Your task to perform on an android device: allow cookies in the chrome app Image 0: 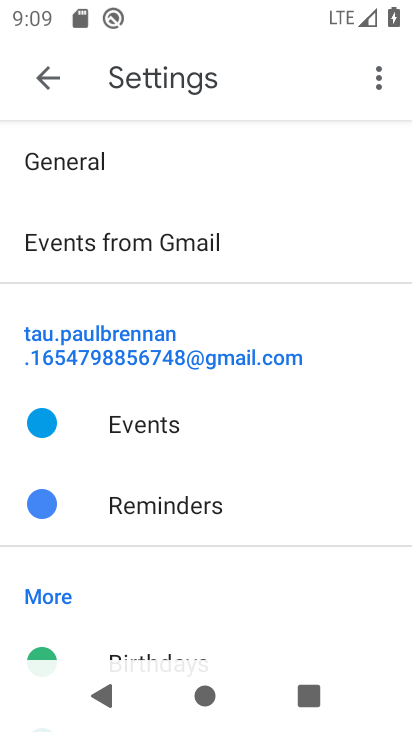
Step 0: press home button
Your task to perform on an android device: allow cookies in the chrome app Image 1: 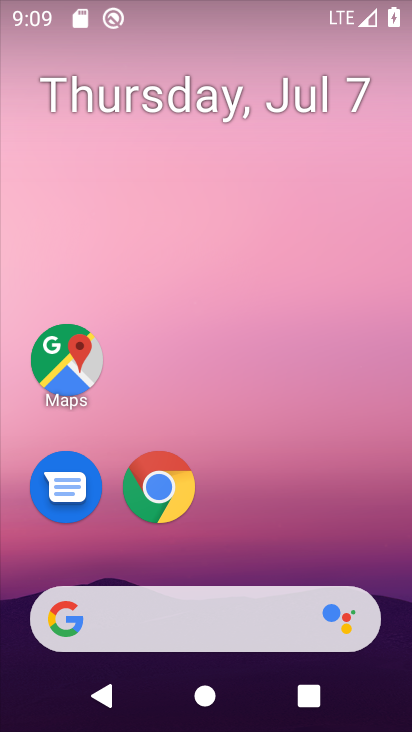
Step 1: drag from (365, 541) to (361, 72)
Your task to perform on an android device: allow cookies in the chrome app Image 2: 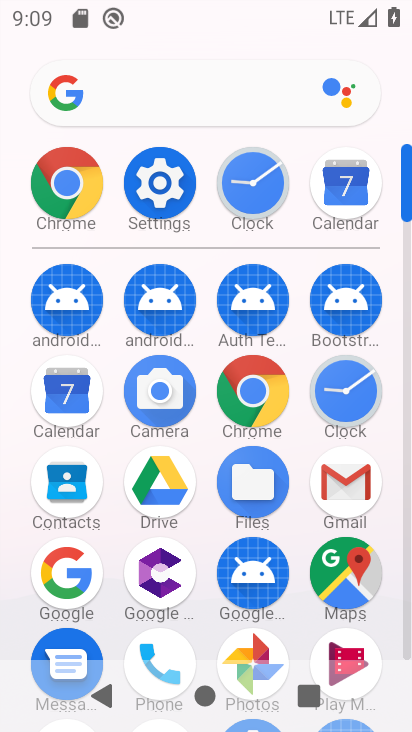
Step 2: click (259, 374)
Your task to perform on an android device: allow cookies in the chrome app Image 3: 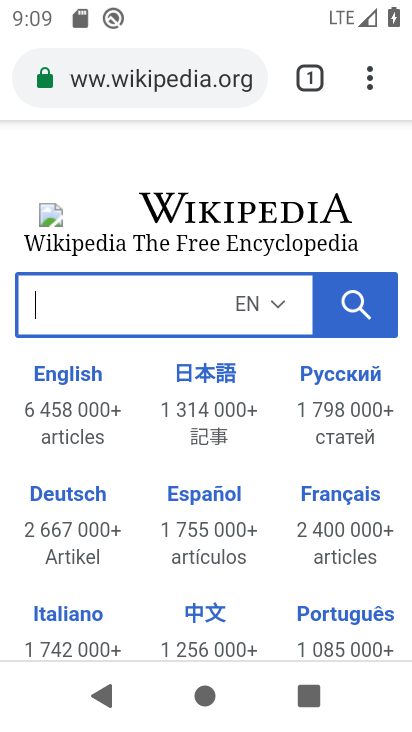
Step 3: click (367, 85)
Your task to perform on an android device: allow cookies in the chrome app Image 4: 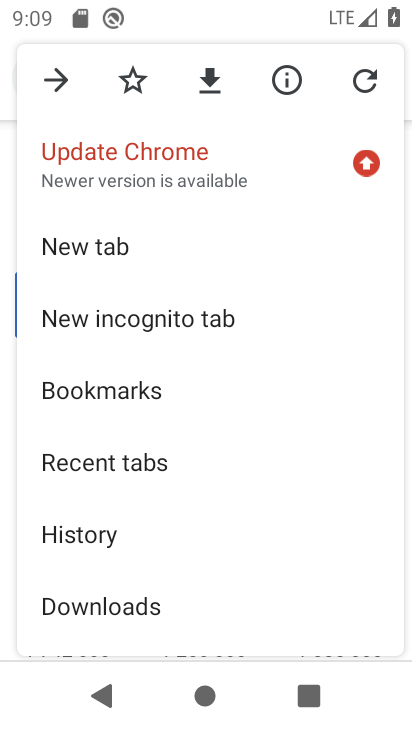
Step 4: drag from (301, 468) to (319, 343)
Your task to perform on an android device: allow cookies in the chrome app Image 5: 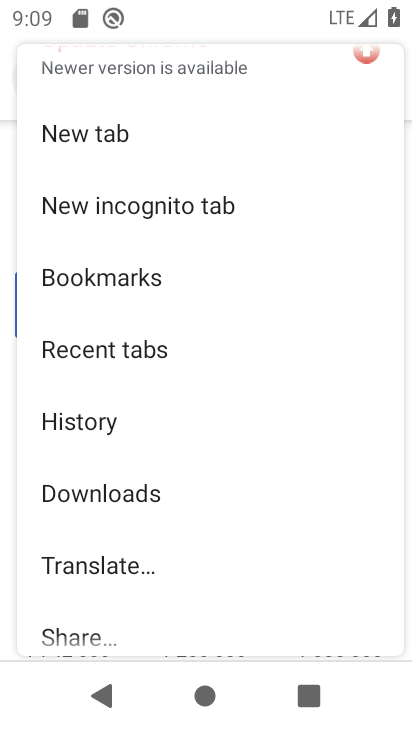
Step 5: drag from (305, 533) to (305, 409)
Your task to perform on an android device: allow cookies in the chrome app Image 6: 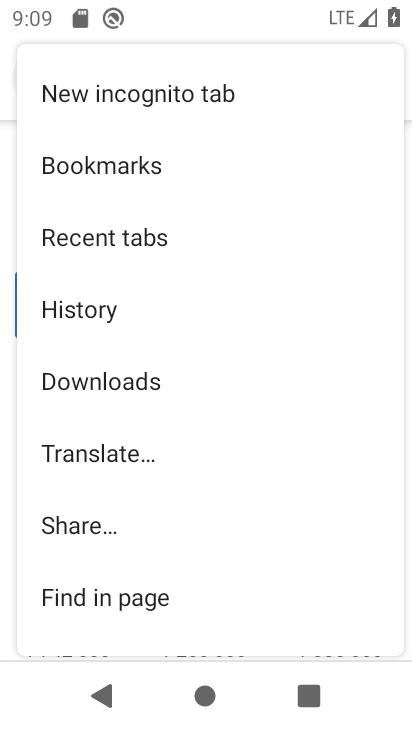
Step 6: drag from (288, 584) to (296, 438)
Your task to perform on an android device: allow cookies in the chrome app Image 7: 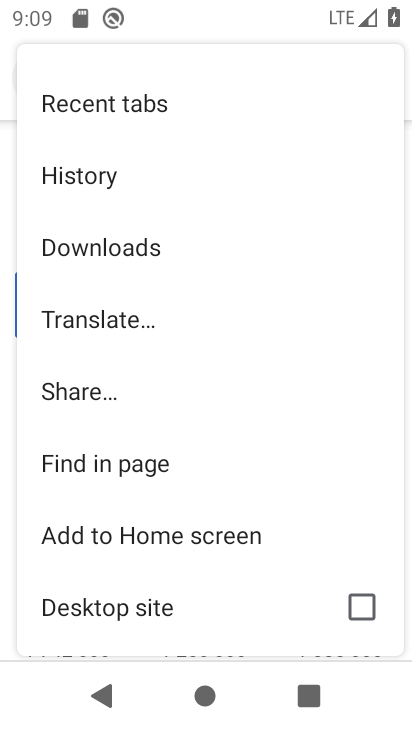
Step 7: drag from (280, 599) to (293, 460)
Your task to perform on an android device: allow cookies in the chrome app Image 8: 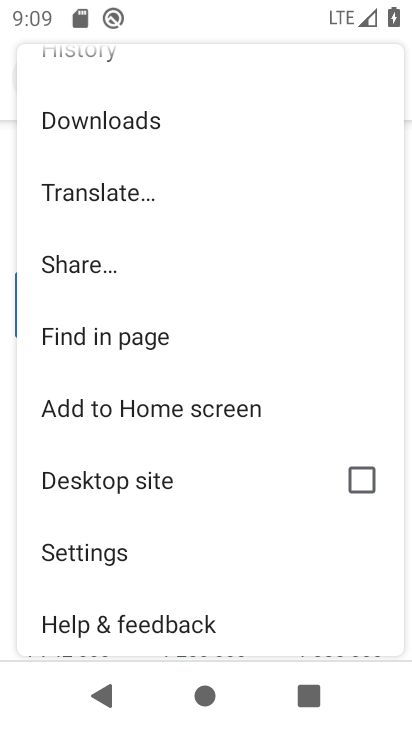
Step 8: click (152, 561)
Your task to perform on an android device: allow cookies in the chrome app Image 9: 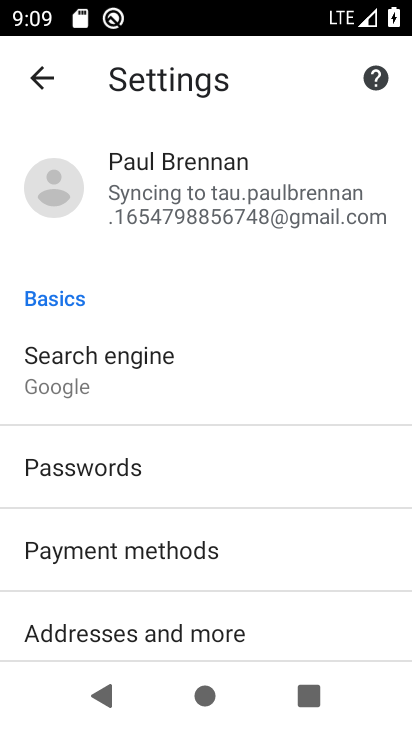
Step 9: drag from (334, 477) to (340, 363)
Your task to perform on an android device: allow cookies in the chrome app Image 10: 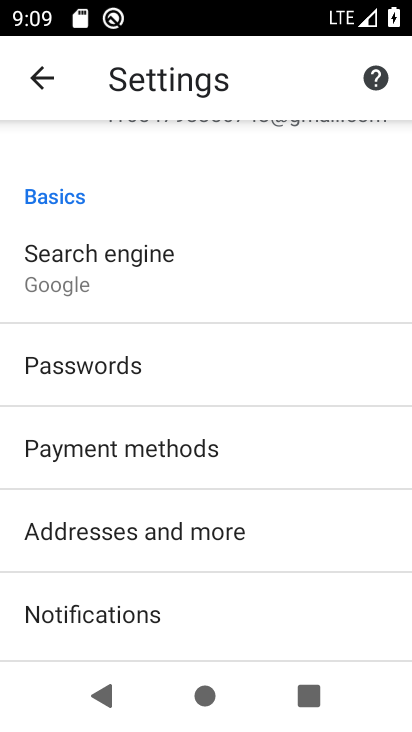
Step 10: drag from (332, 465) to (332, 376)
Your task to perform on an android device: allow cookies in the chrome app Image 11: 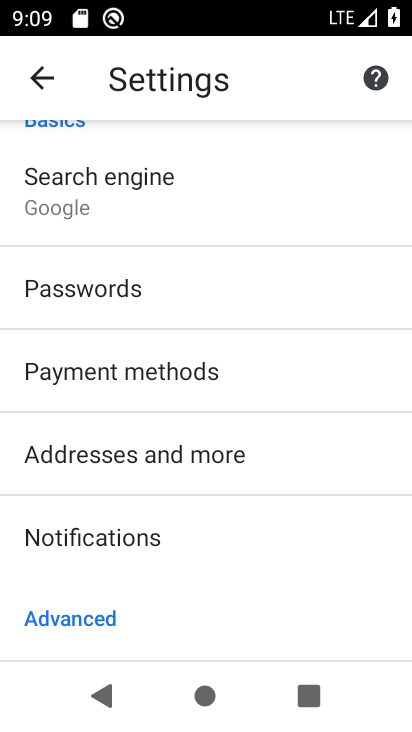
Step 11: drag from (327, 493) to (325, 389)
Your task to perform on an android device: allow cookies in the chrome app Image 12: 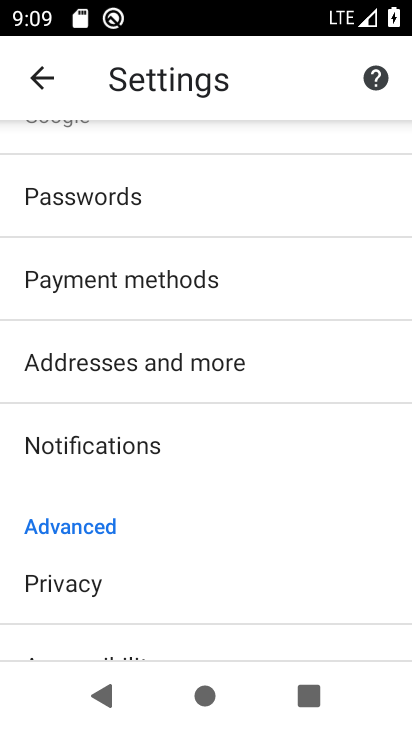
Step 12: drag from (325, 495) to (324, 411)
Your task to perform on an android device: allow cookies in the chrome app Image 13: 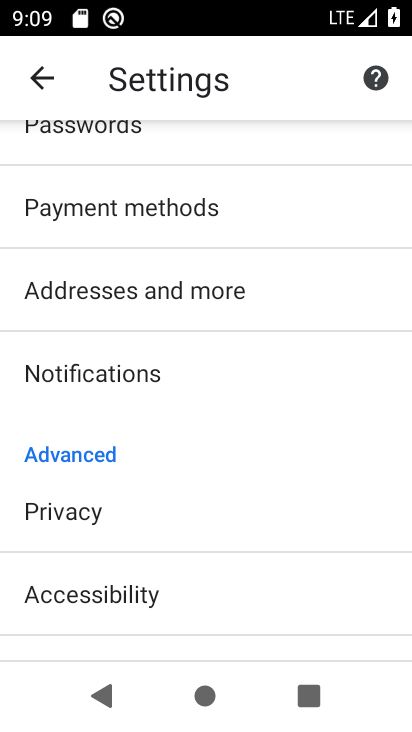
Step 13: drag from (324, 494) to (327, 393)
Your task to perform on an android device: allow cookies in the chrome app Image 14: 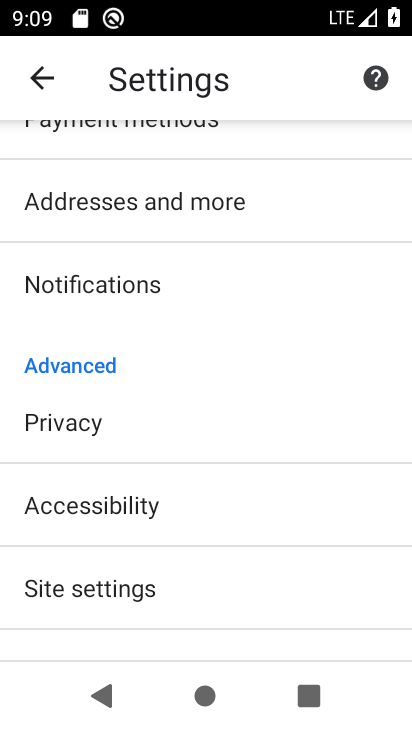
Step 14: drag from (324, 505) to (322, 381)
Your task to perform on an android device: allow cookies in the chrome app Image 15: 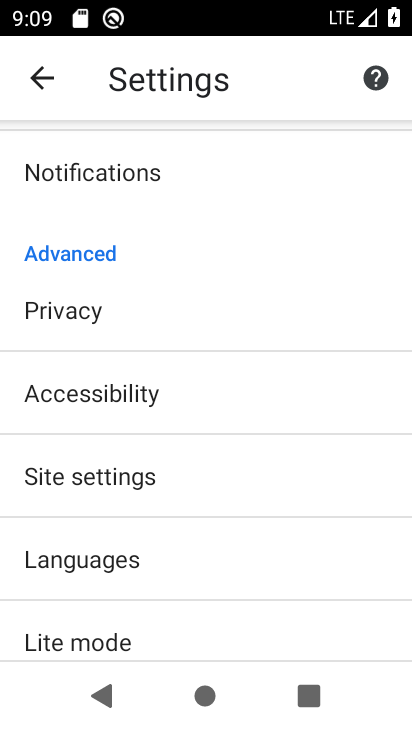
Step 15: drag from (318, 562) to (318, 428)
Your task to perform on an android device: allow cookies in the chrome app Image 16: 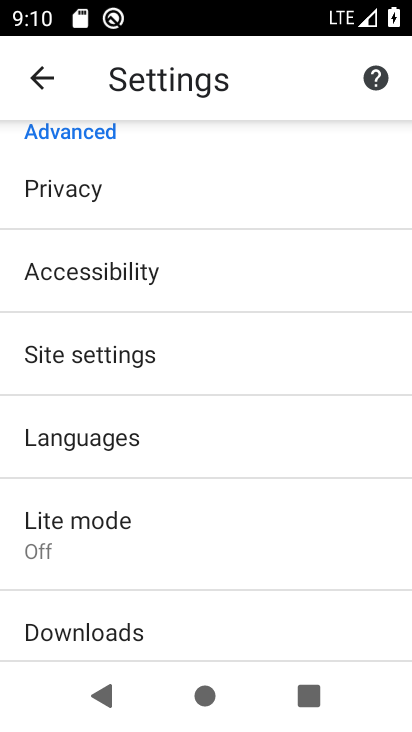
Step 16: click (233, 364)
Your task to perform on an android device: allow cookies in the chrome app Image 17: 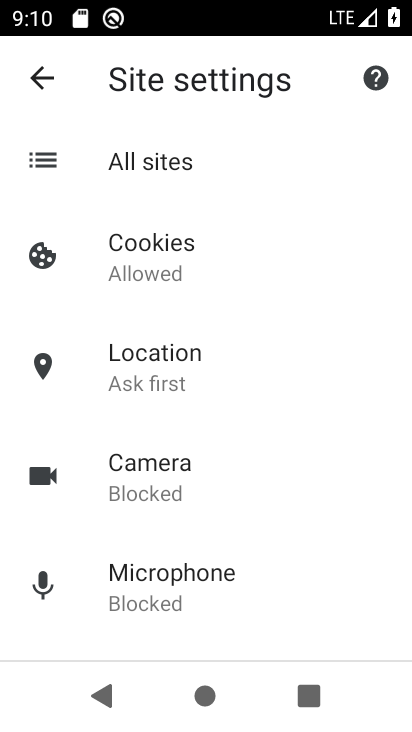
Step 17: drag from (307, 448) to (311, 369)
Your task to perform on an android device: allow cookies in the chrome app Image 18: 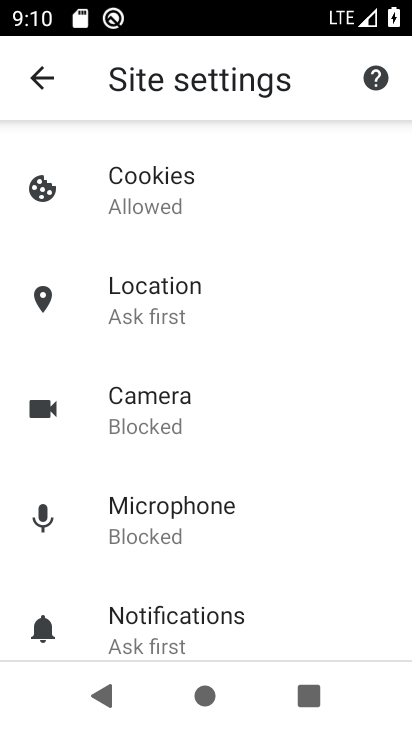
Step 18: drag from (334, 446) to (336, 341)
Your task to perform on an android device: allow cookies in the chrome app Image 19: 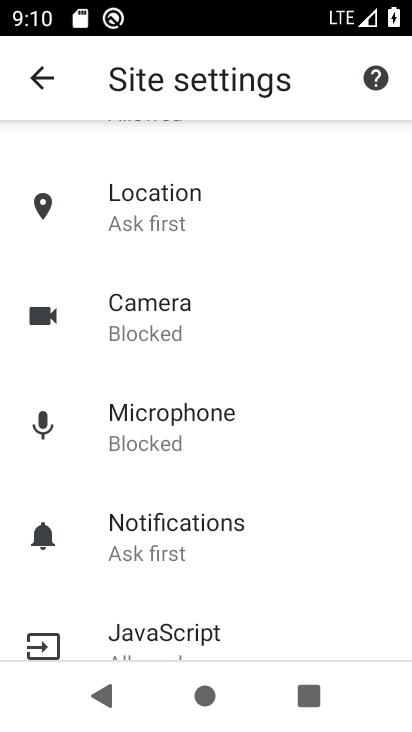
Step 19: drag from (336, 447) to (336, 322)
Your task to perform on an android device: allow cookies in the chrome app Image 20: 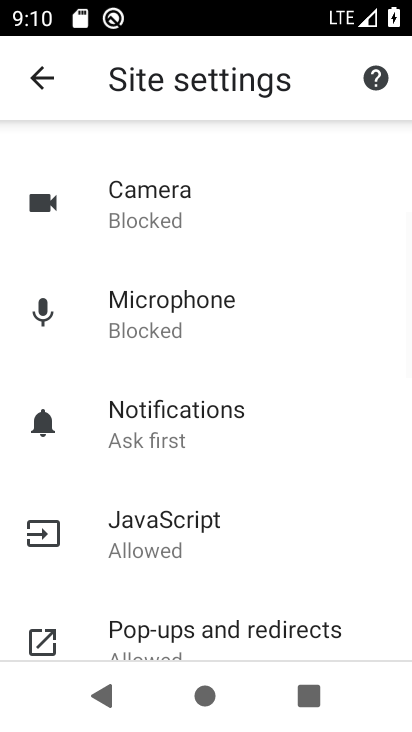
Step 20: drag from (343, 232) to (343, 310)
Your task to perform on an android device: allow cookies in the chrome app Image 21: 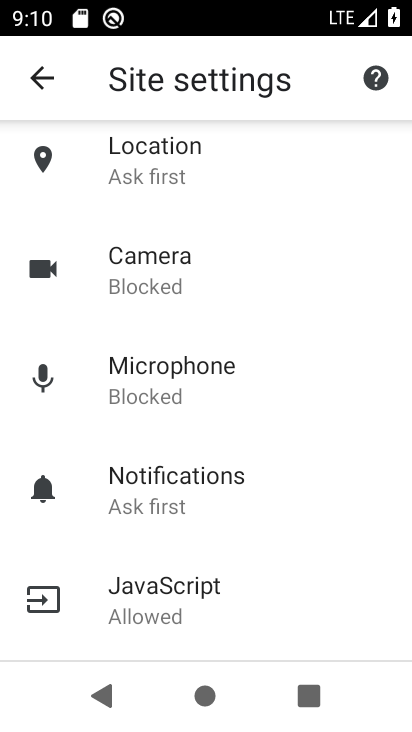
Step 21: drag from (339, 236) to (343, 322)
Your task to perform on an android device: allow cookies in the chrome app Image 22: 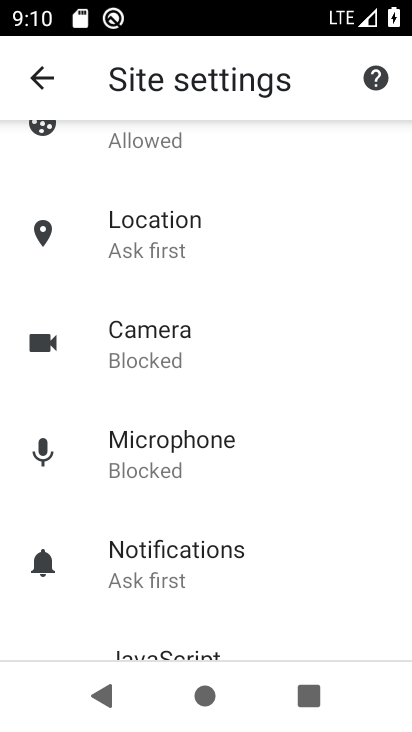
Step 22: drag from (342, 230) to (340, 336)
Your task to perform on an android device: allow cookies in the chrome app Image 23: 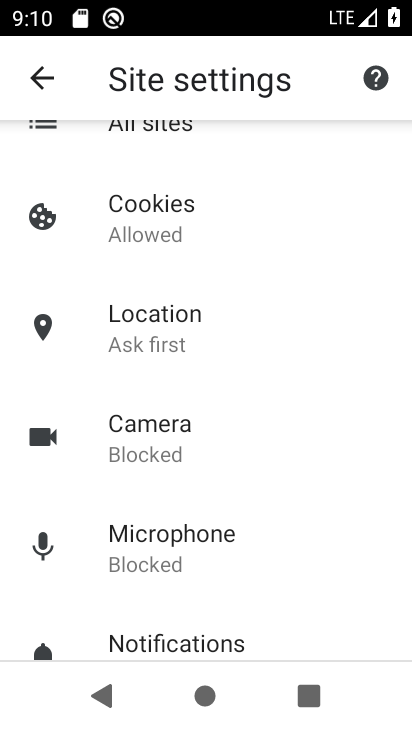
Step 23: drag from (336, 251) to (334, 352)
Your task to perform on an android device: allow cookies in the chrome app Image 24: 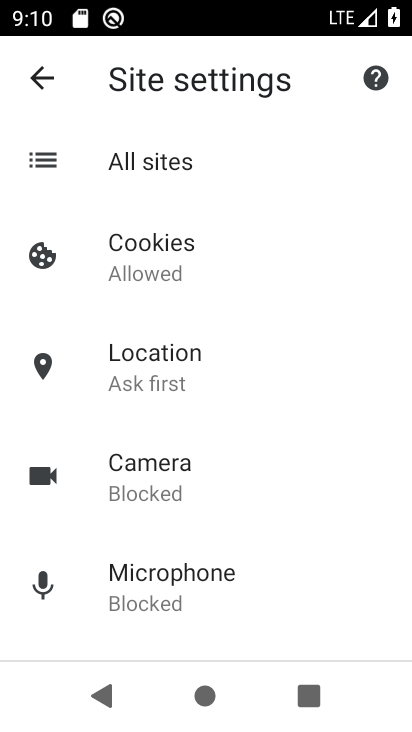
Step 24: click (245, 249)
Your task to perform on an android device: allow cookies in the chrome app Image 25: 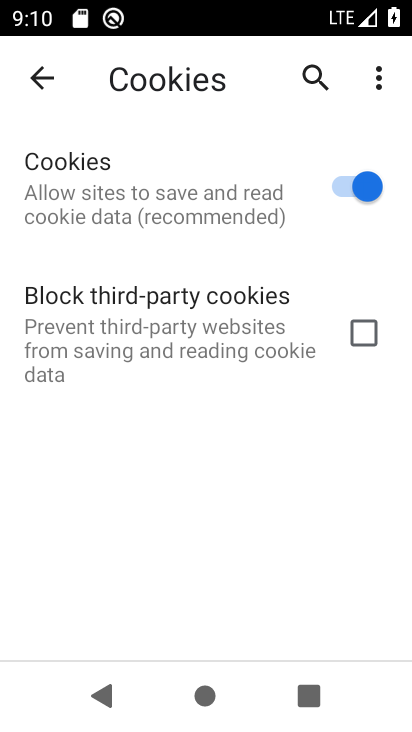
Step 25: task complete